Your task to perform on an android device: Open the stopwatch Image 0: 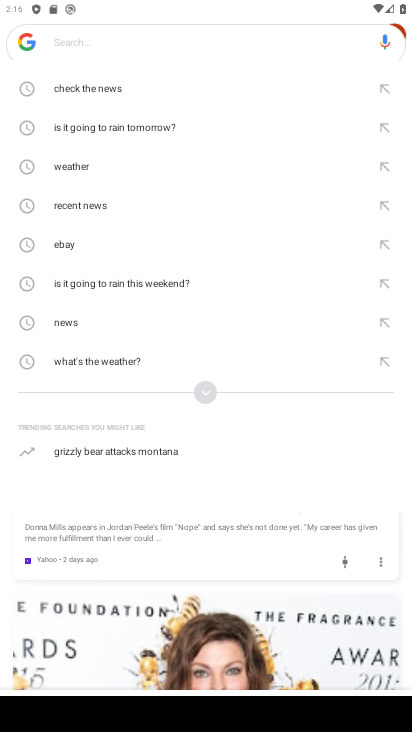
Step 0: press home button
Your task to perform on an android device: Open the stopwatch Image 1: 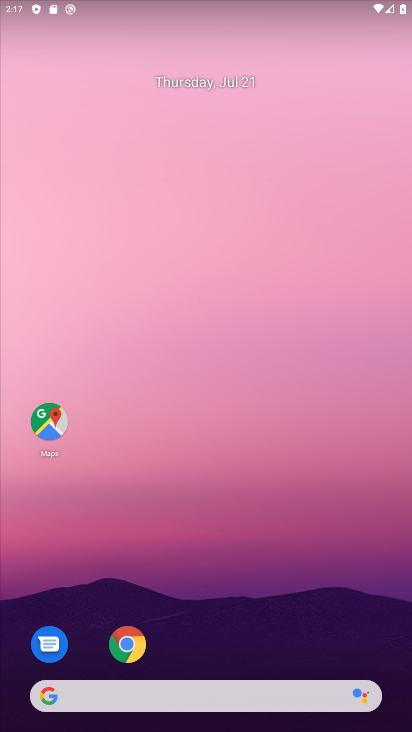
Step 1: drag from (283, 638) to (185, 157)
Your task to perform on an android device: Open the stopwatch Image 2: 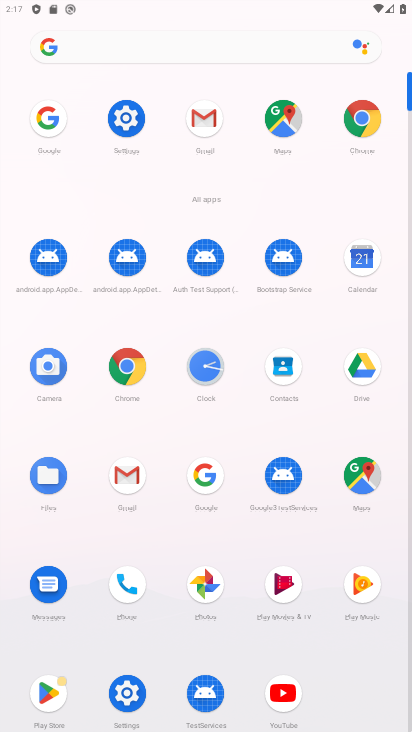
Step 2: click (202, 370)
Your task to perform on an android device: Open the stopwatch Image 3: 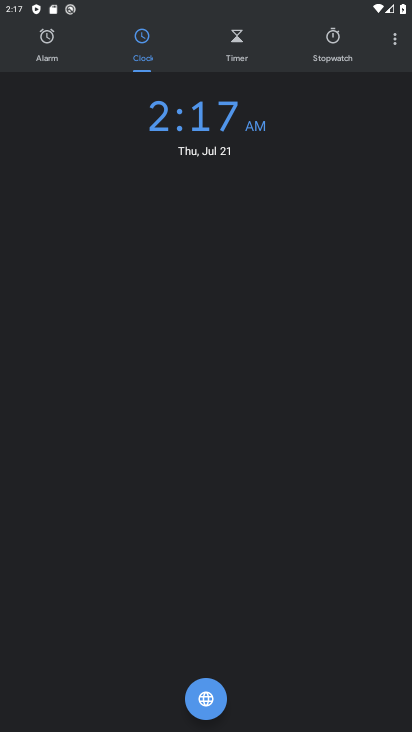
Step 3: click (340, 50)
Your task to perform on an android device: Open the stopwatch Image 4: 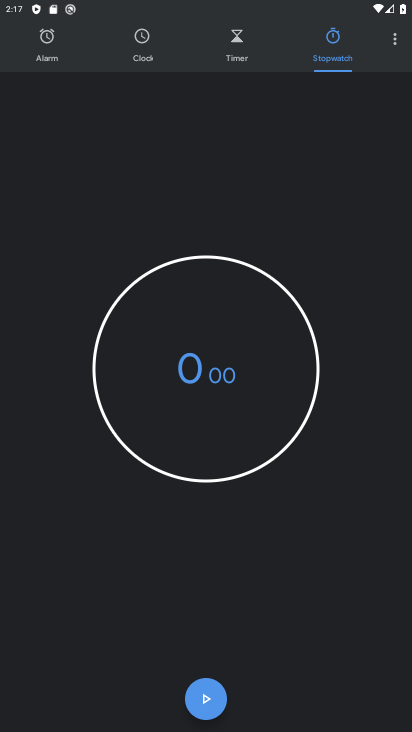
Step 4: task complete